Your task to perform on an android device: toggle airplane mode Image 0: 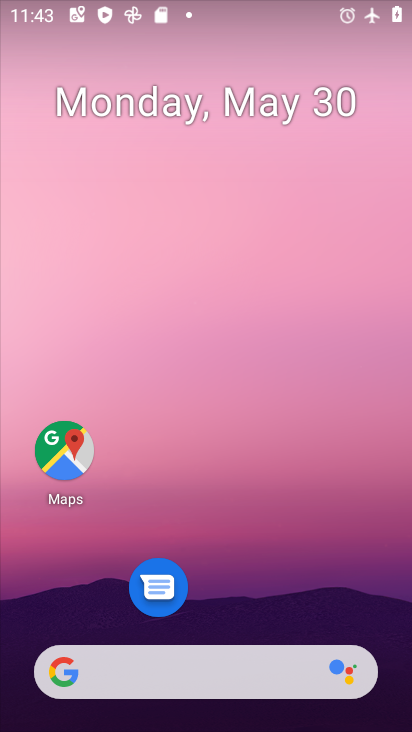
Step 0: drag from (219, 638) to (184, 8)
Your task to perform on an android device: toggle airplane mode Image 1: 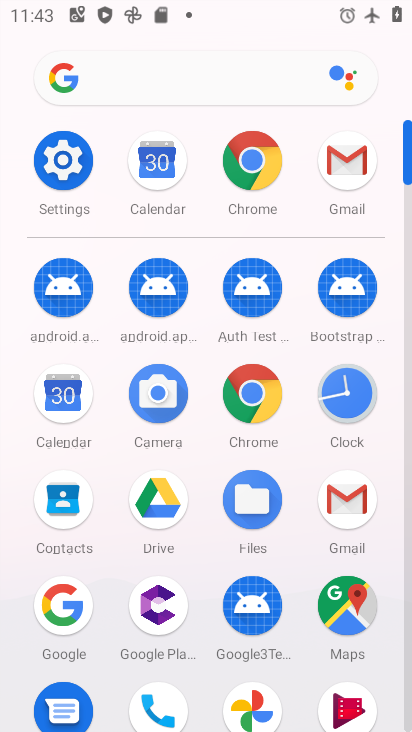
Step 1: click (71, 166)
Your task to perform on an android device: toggle airplane mode Image 2: 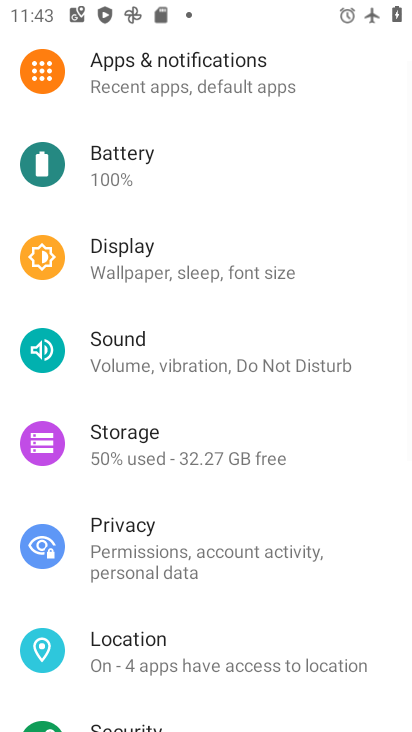
Step 2: drag from (189, 83) to (188, 466)
Your task to perform on an android device: toggle airplane mode Image 3: 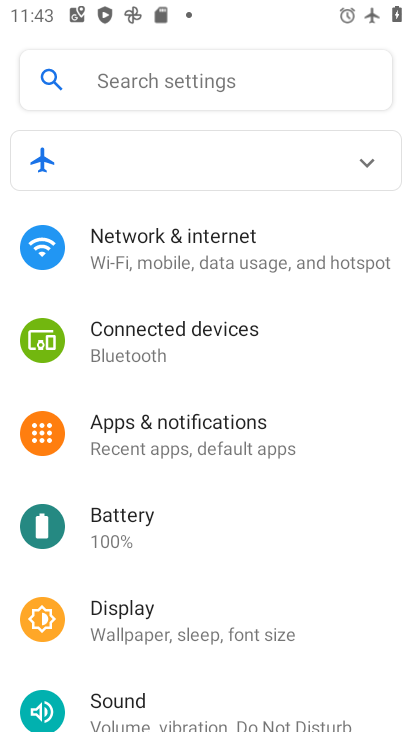
Step 3: click (179, 256)
Your task to perform on an android device: toggle airplane mode Image 4: 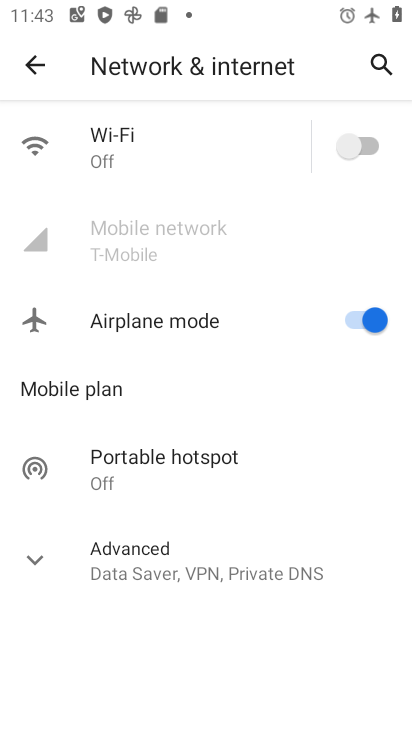
Step 4: click (365, 330)
Your task to perform on an android device: toggle airplane mode Image 5: 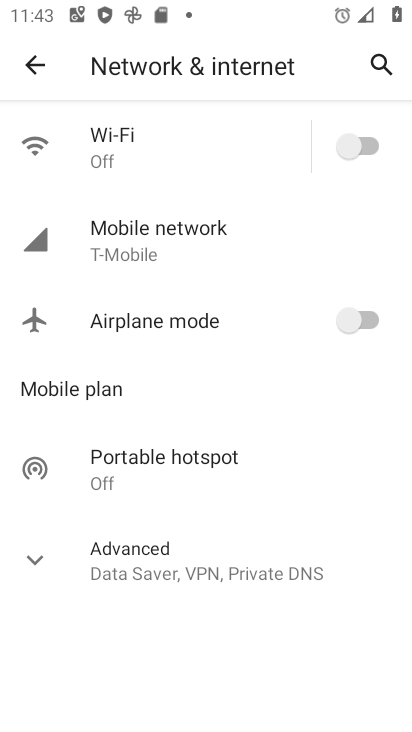
Step 5: task complete